Your task to perform on an android device: open chrome and create a bookmark for the current page Image 0: 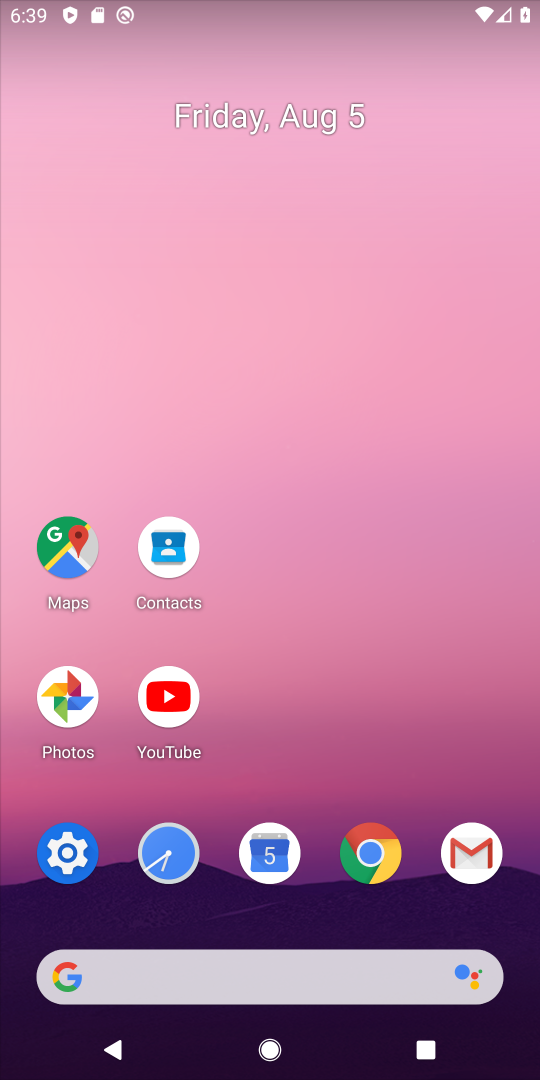
Step 0: click (374, 857)
Your task to perform on an android device: open chrome and create a bookmark for the current page Image 1: 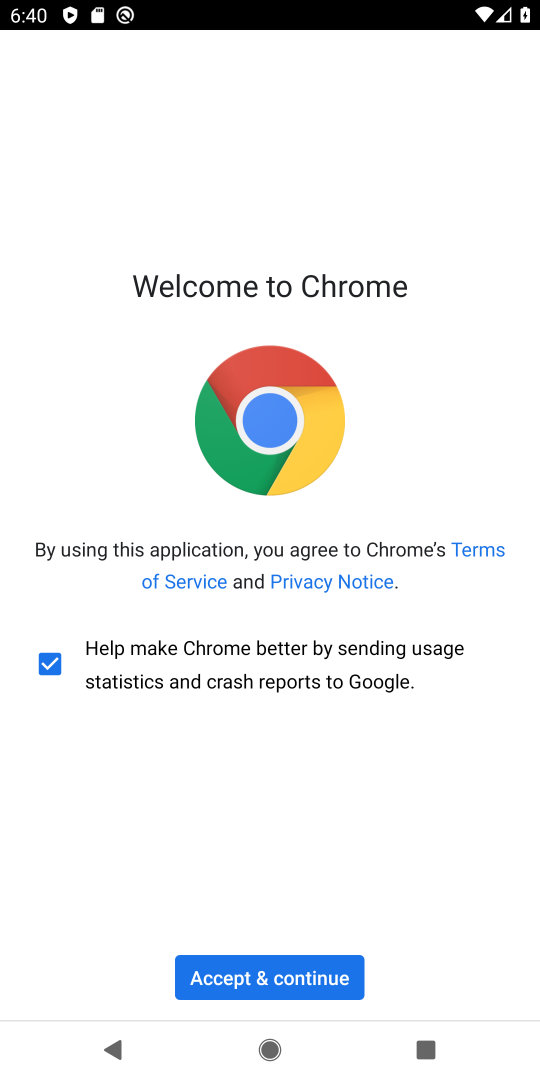
Step 1: click (270, 974)
Your task to perform on an android device: open chrome and create a bookmark for the current page Image 2: 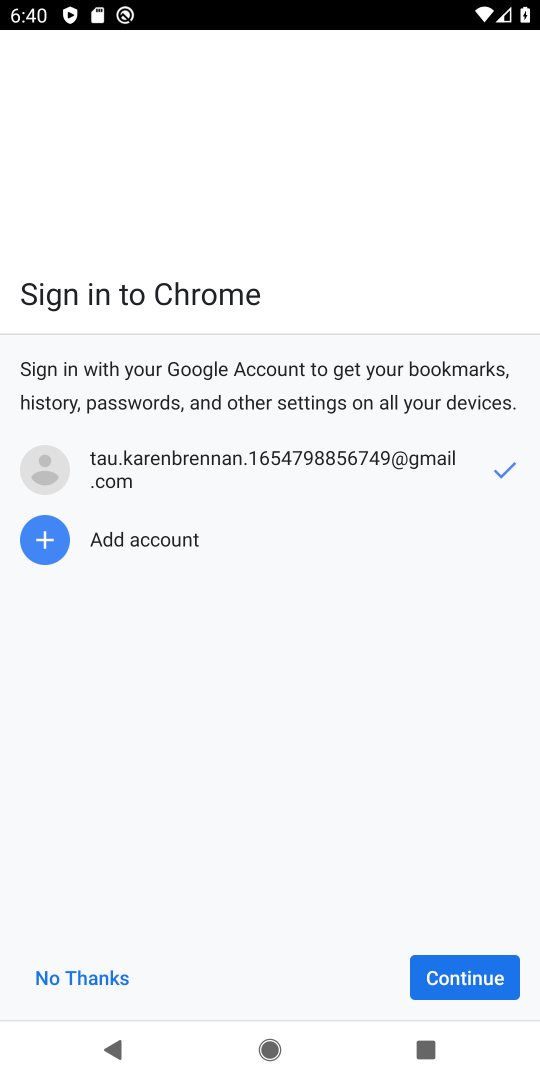
Step 2: click (449, 980)
Your task to perform on an android device: open chrome and create a bookmark for the current page Image 3: 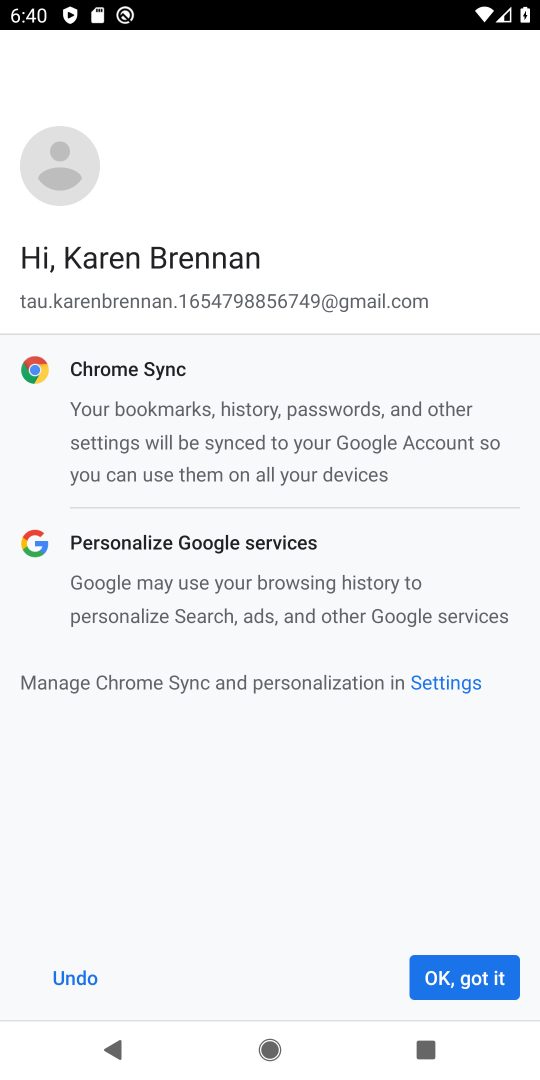
Step 3: click (451, 978)
Your task to perform on an android device: open chrome and create a bookmark for the current page Image 4: 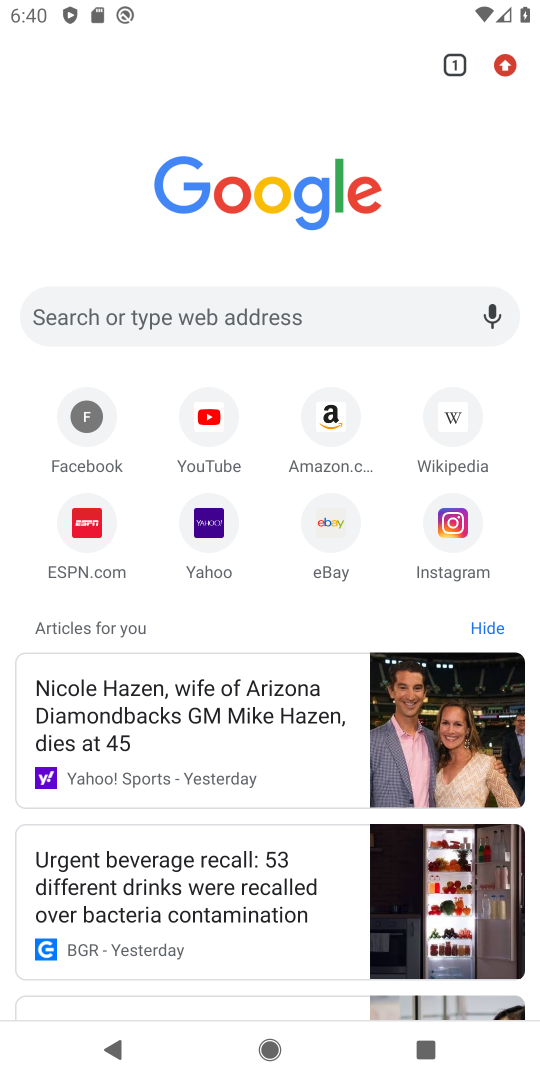
Step 4: click (506, 71)
Your task to perform on an android device: open chrome and create a bookmark for the current page Image 5: 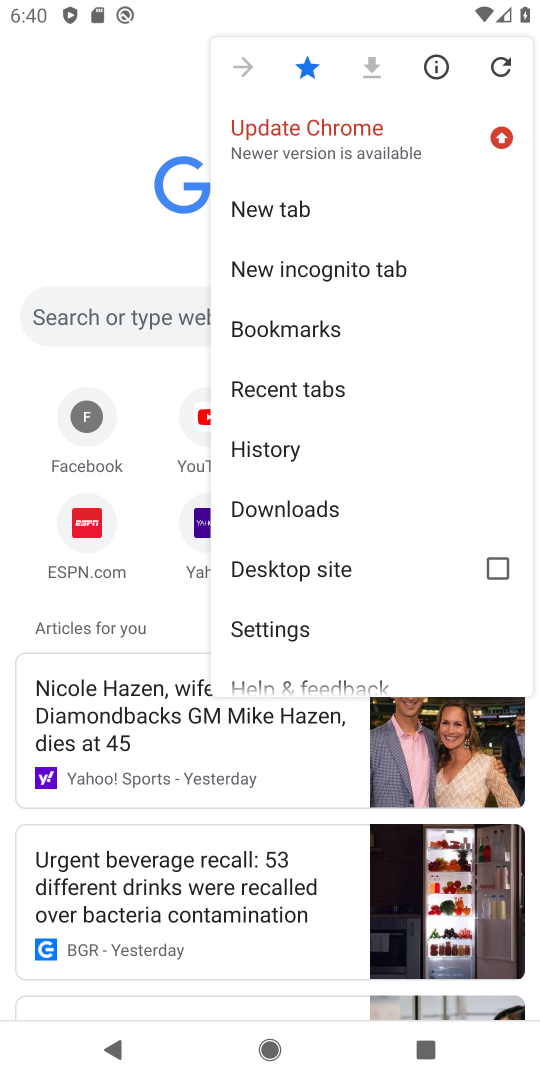
Step 5: task complete